Your task to perform on an android device: Go to CNN.com Image 0: 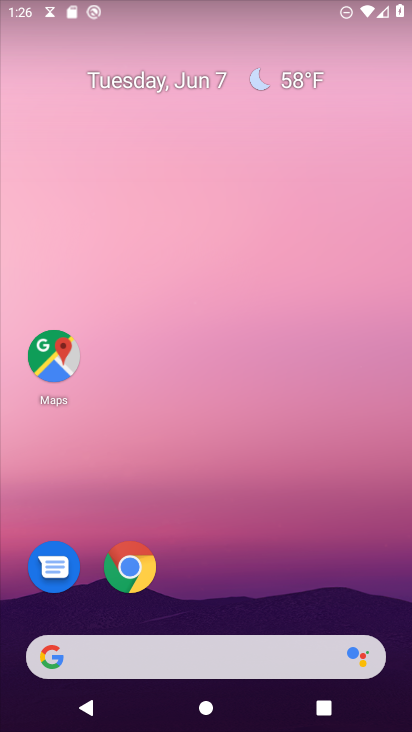
Step 0: click (134, 558)
Your task to perform on an android device: Go to CNN.com Image 1: 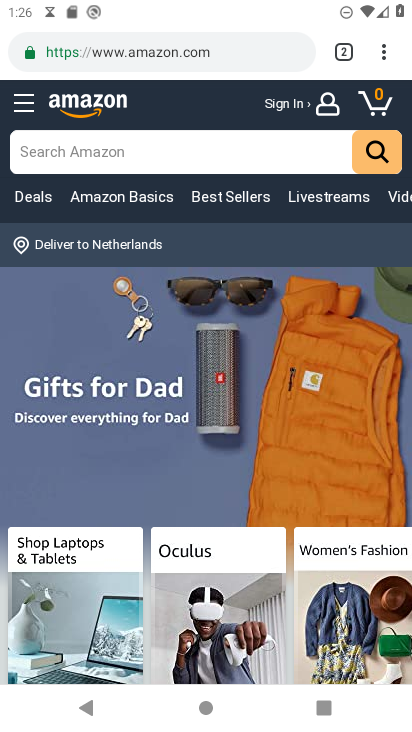
Step 1: click (214, 42)
Your task to perform on an android device: Go to CNN.com Image 2: 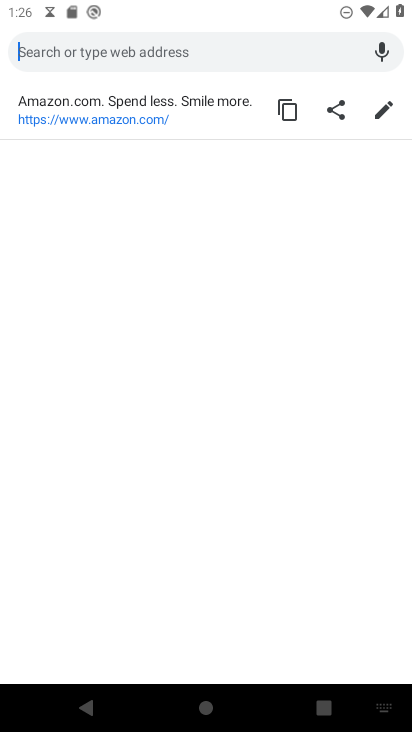
Step 2: type "CNN.com"
Your task to perform on an android device: Go to CNN.com Image 3: 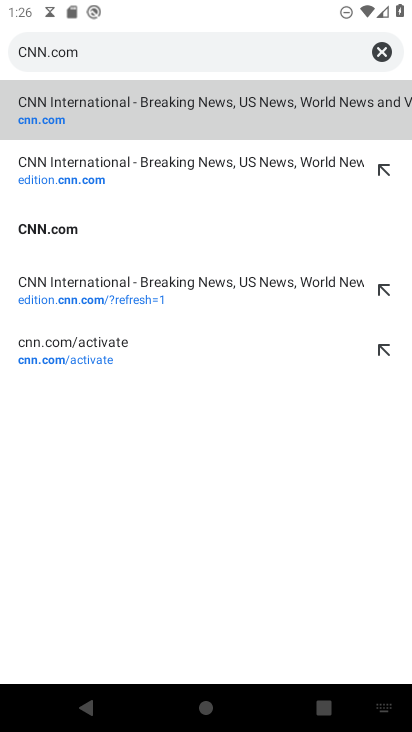
Step 3: click (26, 232)
Your task to perform on an android device: Go to CNN.com Image 4: 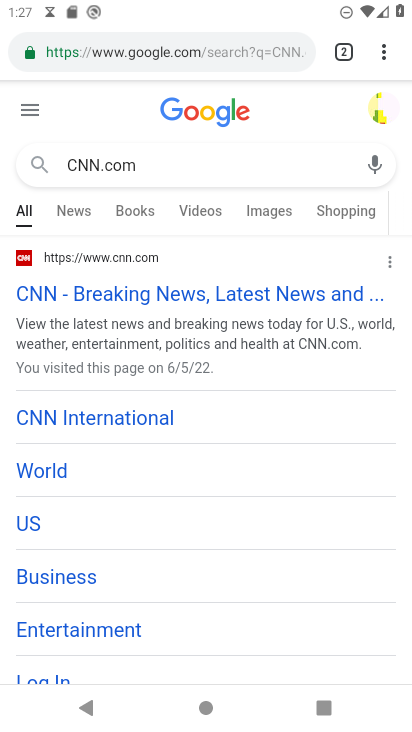
Step 4: task complete